Your task to perform on an android device: set the timer Image 0: 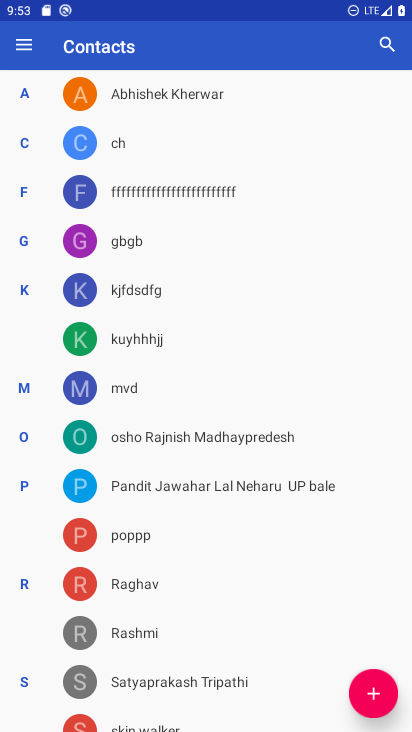
Step 0: press home button
Your task to perform on an android device: set the timer Image 1: 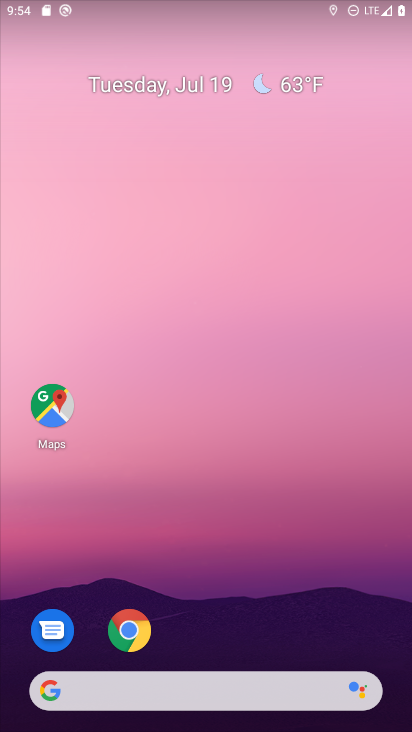
Step 1: drag from (175, 698) to (7, 37)
Your task to perform on an android device: set the timer Image 2: 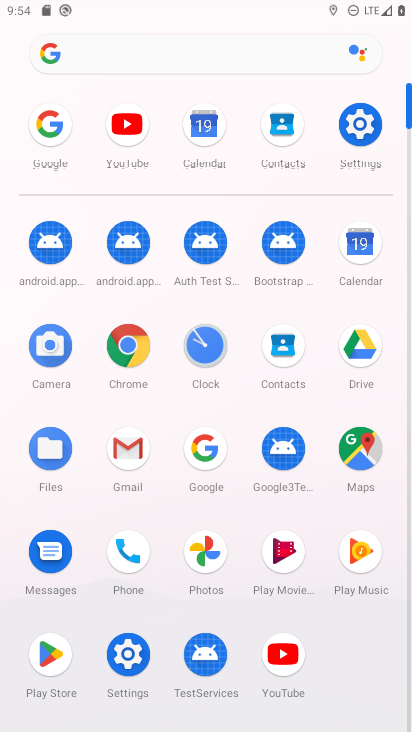
Step 2: click (207, 343)
Your task to perform on an android device: set the timer Image 3: 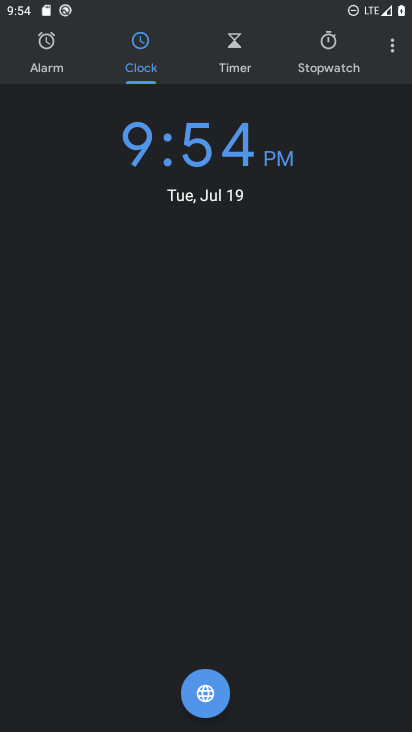
Step 3: click (230, 48)
Your task to perform on an android device: set the timer Image 4: 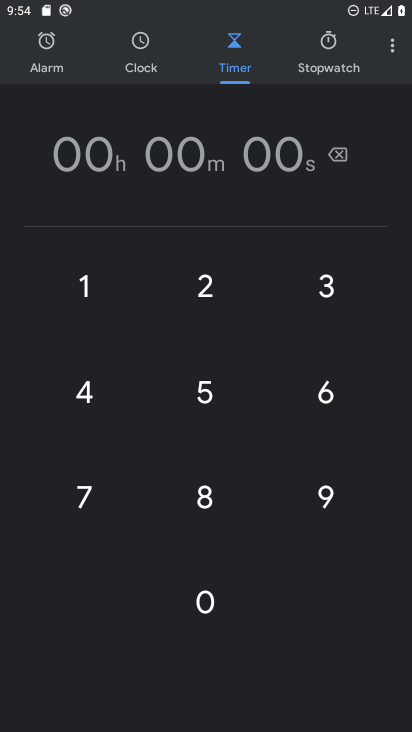
Step 4: type "1357"
Your task to perform on an android device: set the timer Image 5: 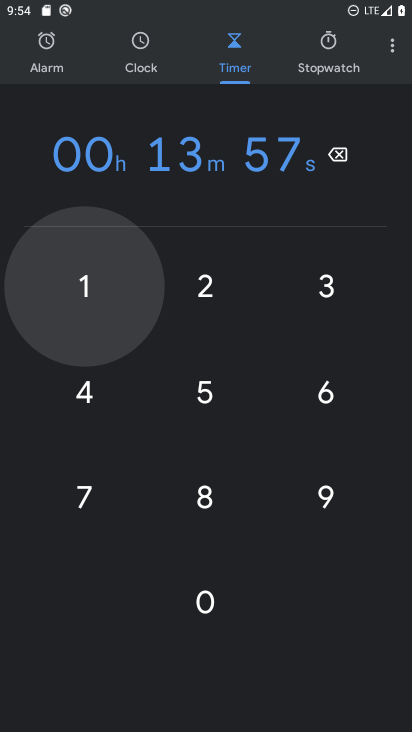
Step 5: type ""
Your task to perform on an android device: set the timer Image 6: 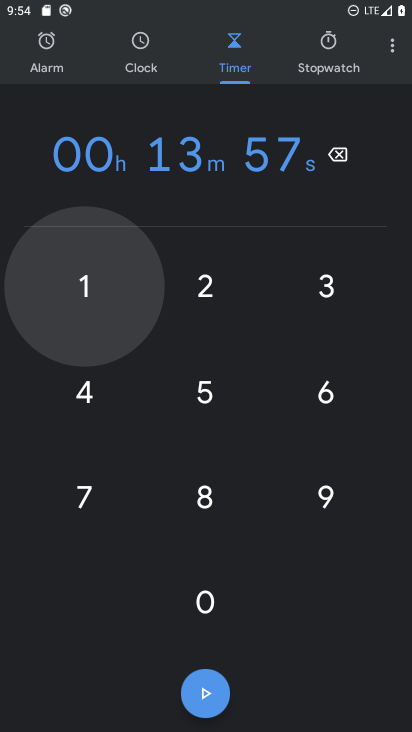
Step 6: task complete